Your task to perform on an android device: Open maps Image 0: 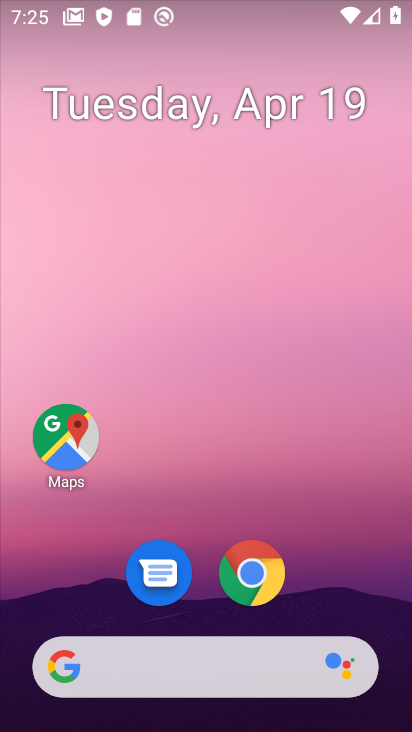
Step 0: click (67, 428)
Your task to perform on an android device: Open maps Image 1: 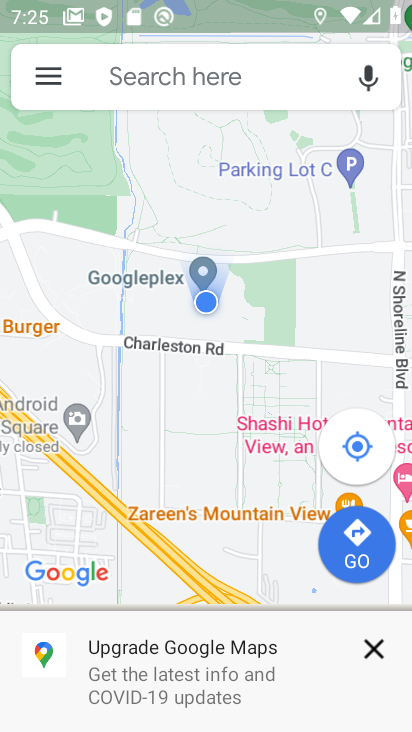
Step 1: task complete